Your task to perform on an android device: Go to calendar. Show me events next week Image 0: 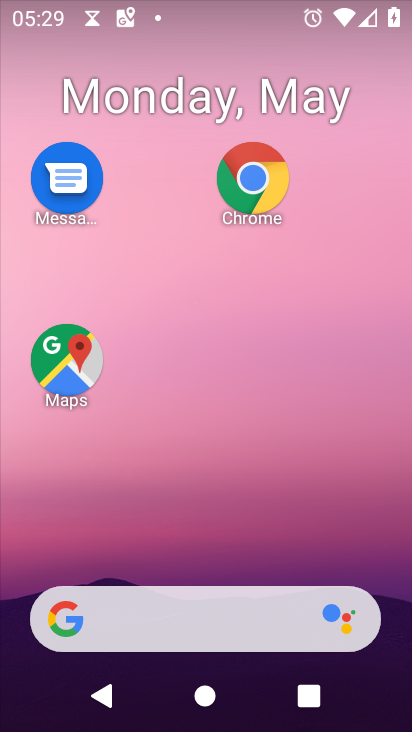
Step 0: drag from (192, 555) to (259, 3)
Your task to perform on an android device: Go to calendar. Show me events next week Image 1: 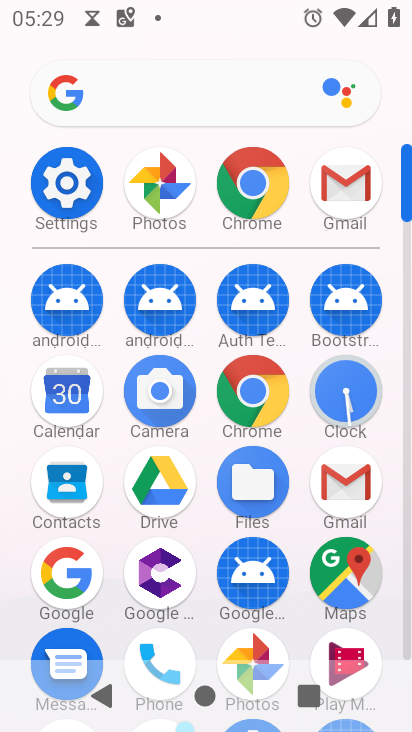
Step 1: click (77, 398)
Your task to perform on an android device: Go to calendar. Show me events next week Image 2: 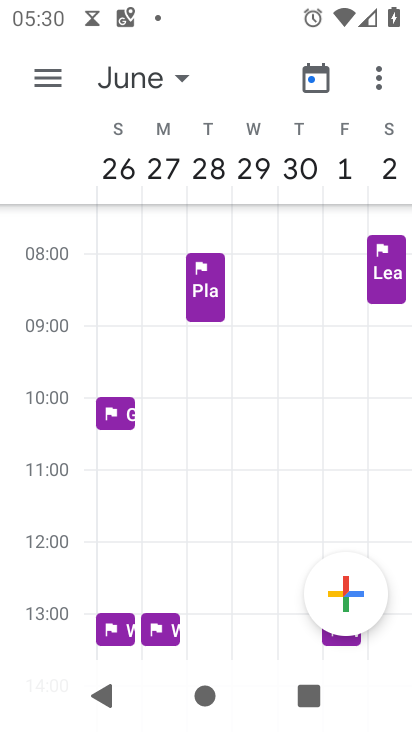
Step 2: click (152, 75)
Your task to perform on an android device: Go to calendar. Show me events next week Image 3: 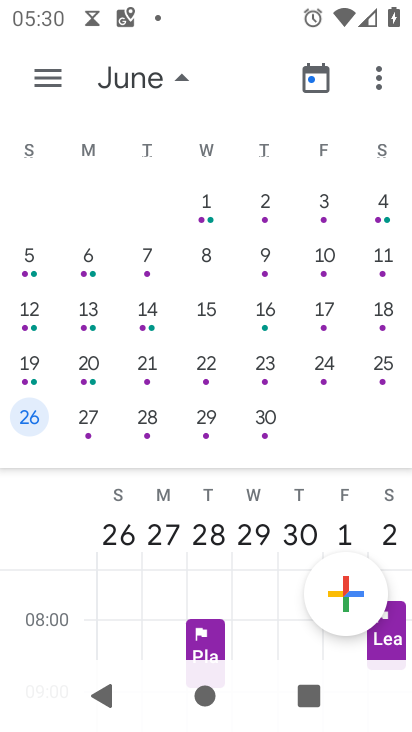
Step 3: click (199, 198)
Your task to perform on an android device: Go to calendar. Show me events next week Image 4: 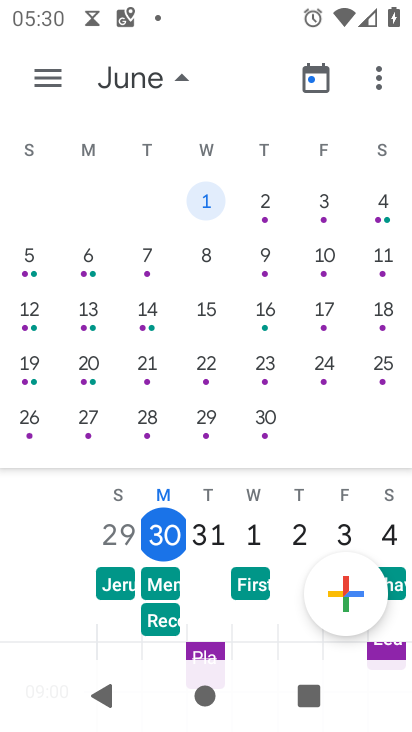
Step 4: task complete